Your task to perform on an android device: turn on wifi Image 0: 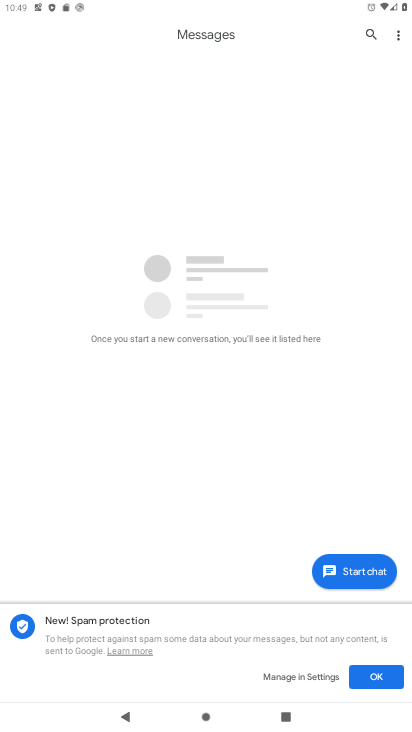
Step 0: drag from (267, 5) to (250, 424)
Your task to perform on an android device: turn on wifi Image 1: 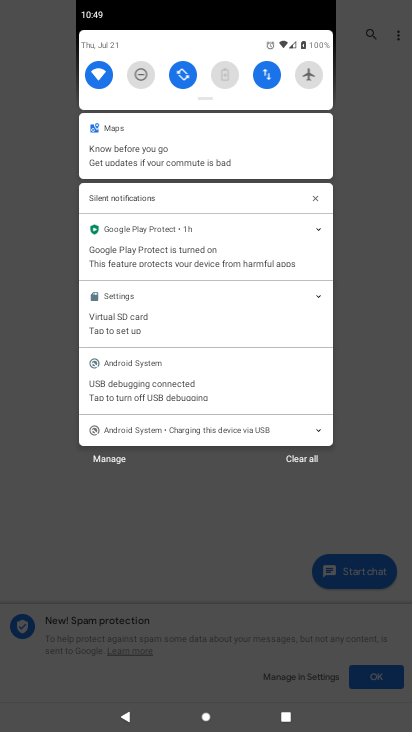
Step 1: task complete